Your task to perform on an android device: What's the weather? Image 0: 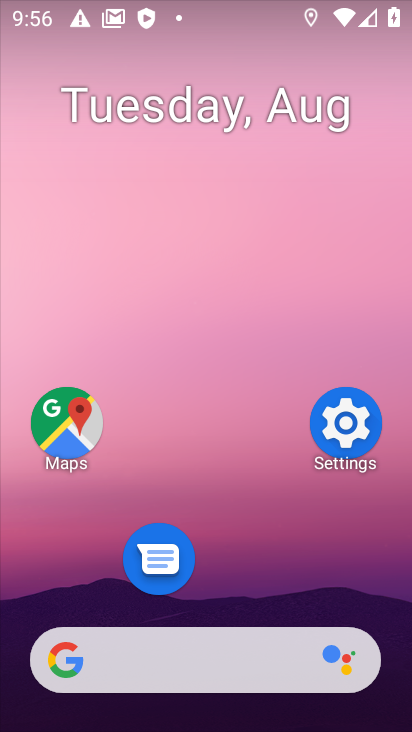
Step 0: press home button
Your task to perform on an android device: What's the weather? Image 1: 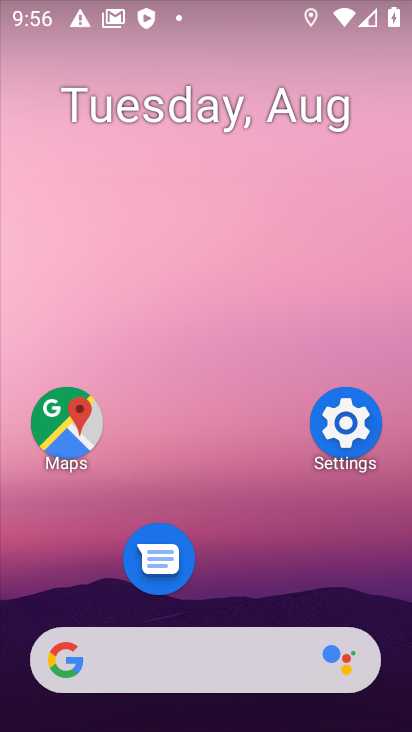
Step 1: click (152, 664)
Your task to perform on an android device: What's the weather? Image 2: 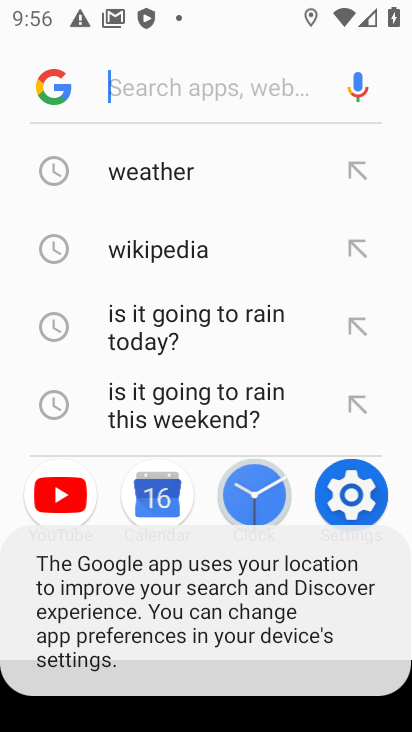
Step 2: click (173, 172)
Your task to perform on an android device: What's the weather? Image 3: 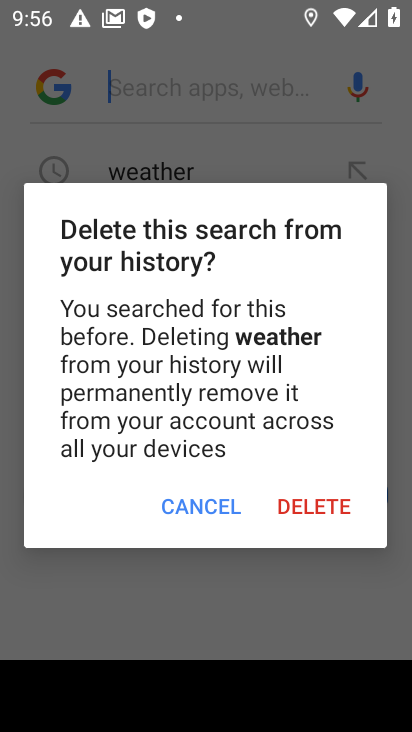
Step 3: click (176, 511)
Your task to perform on an android device: What's the weather? Image 4: 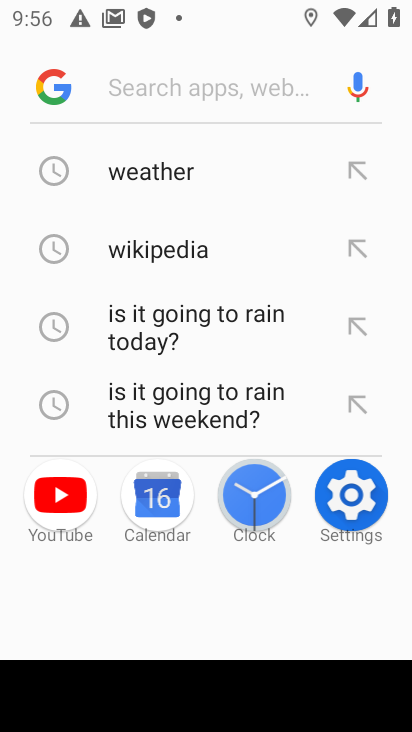
Step 4: click (116, 164)
Your task to perform on an android device: What's the weather? Image 5: 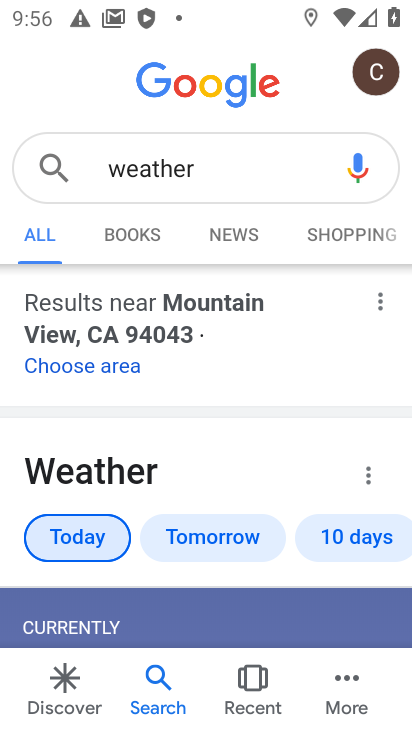
Step 5: task complete